Your task to perform on an android device: delete the emails in spam in the gmail app Image 0: 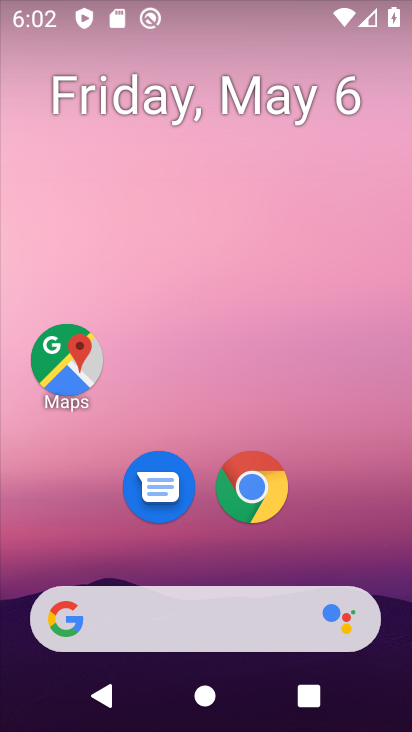
Step 0: drag from (335, 539) to (339, 123)
Your task to perform on an android device: delete the emails in spam in the gmail app Image 1: 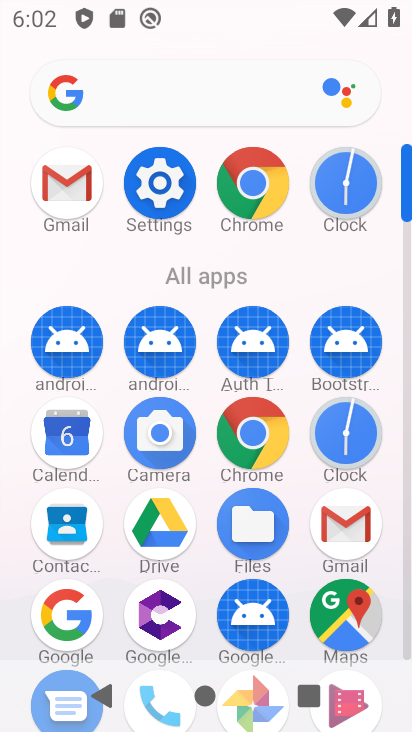
Step 1: click (348, 520)
Your task to perform on an android device: delete the emails in spam in the gmail app Image 2: 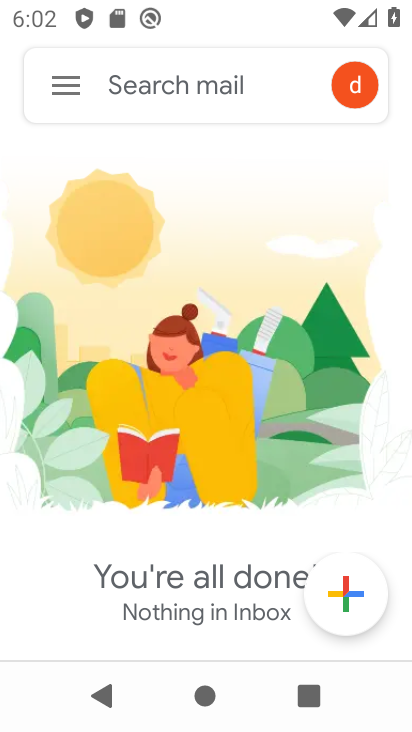
Step 2: click (43, 72)
Your task to perform on an android device: delete the emails in spam in the gmail app Image 3: 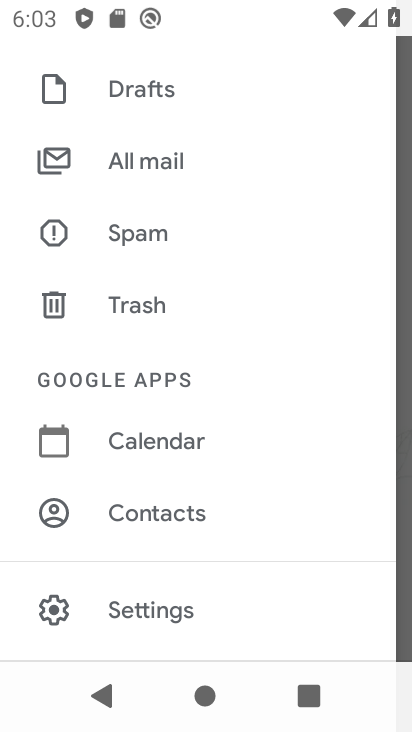
Step 3: click (131, 221)
Your task to perform on an android device: delete the emails in spam in the gmail app Image 4: 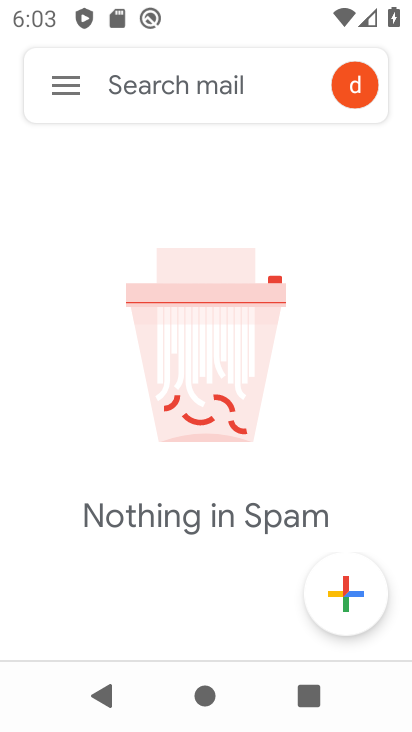
Step 4: task complete